Your task to perform on an android device: open a bookmark in the chrome app Image 0: 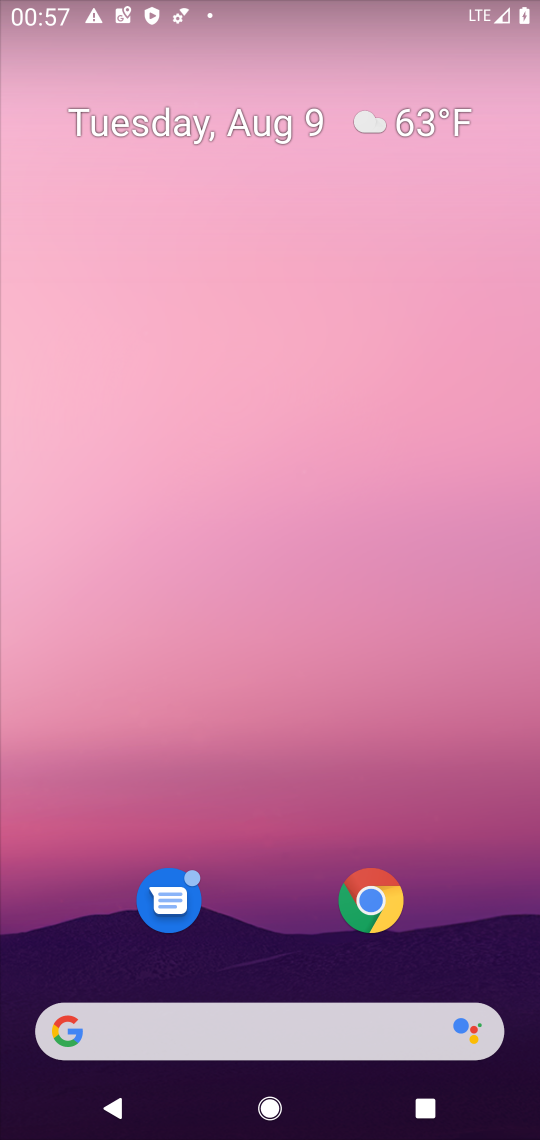
Step 0: press home button
Your task to perform on an android device: open a bookmark in the chrome app Image 1: 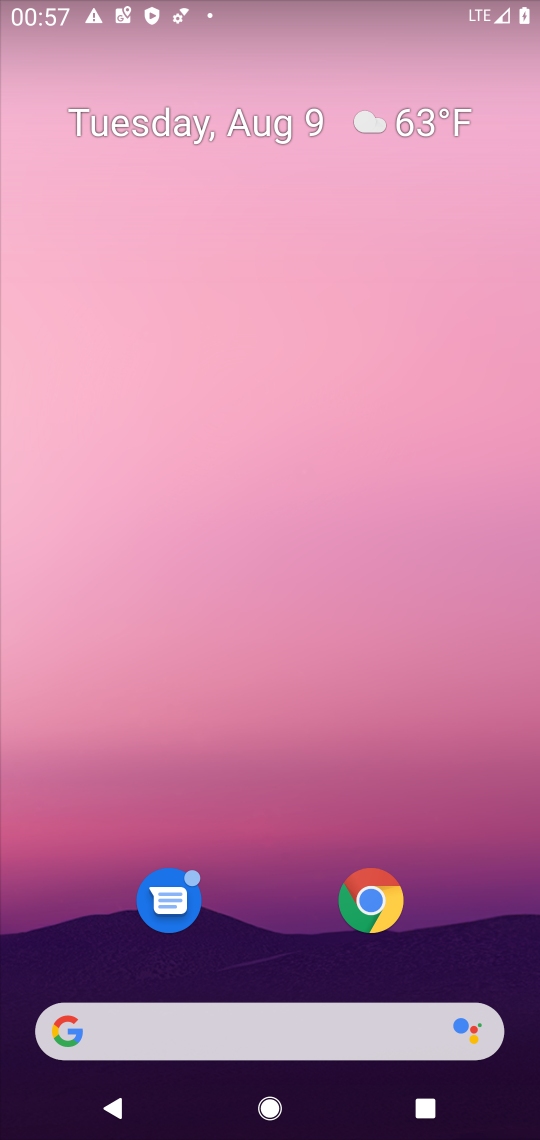
Step 1: drag from (276, 913) to (312, 181)
Your task to perform on an android device: open a bookmark in the chrome app Image 2: 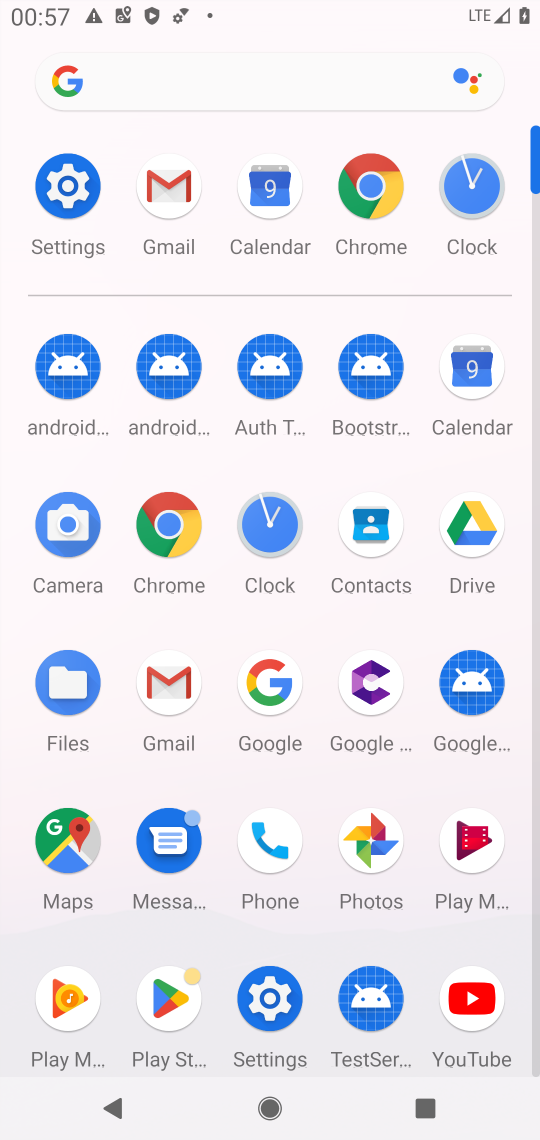
Step 2: click (171, 514)
Your task to perform on an android device: open a bookmark in the chrome app Image 3: 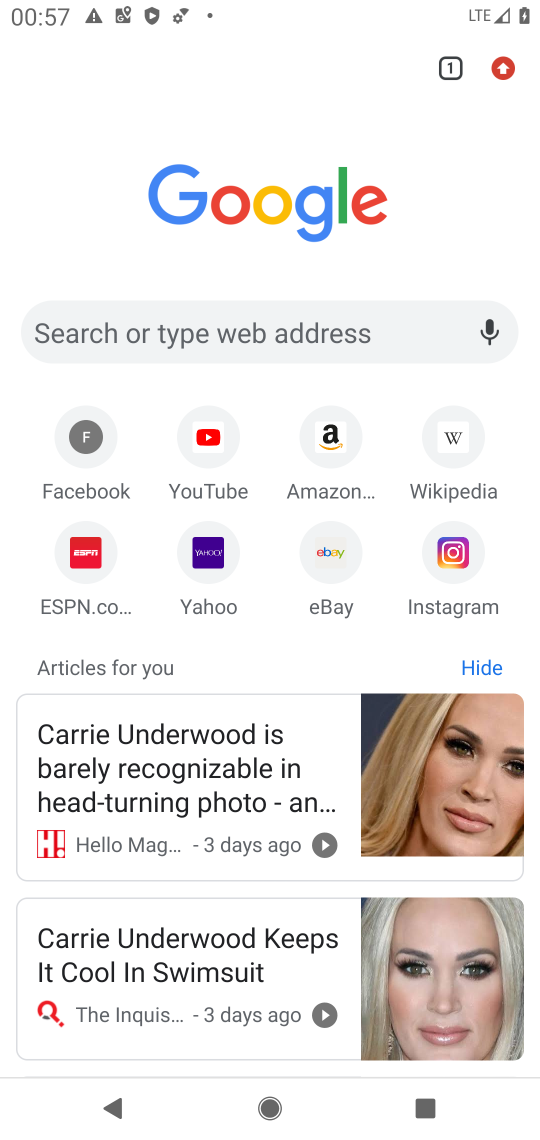
Step 3: click (499, 70)
Your task to perform on an android device: open a bookmark in the chrome app Image 4: 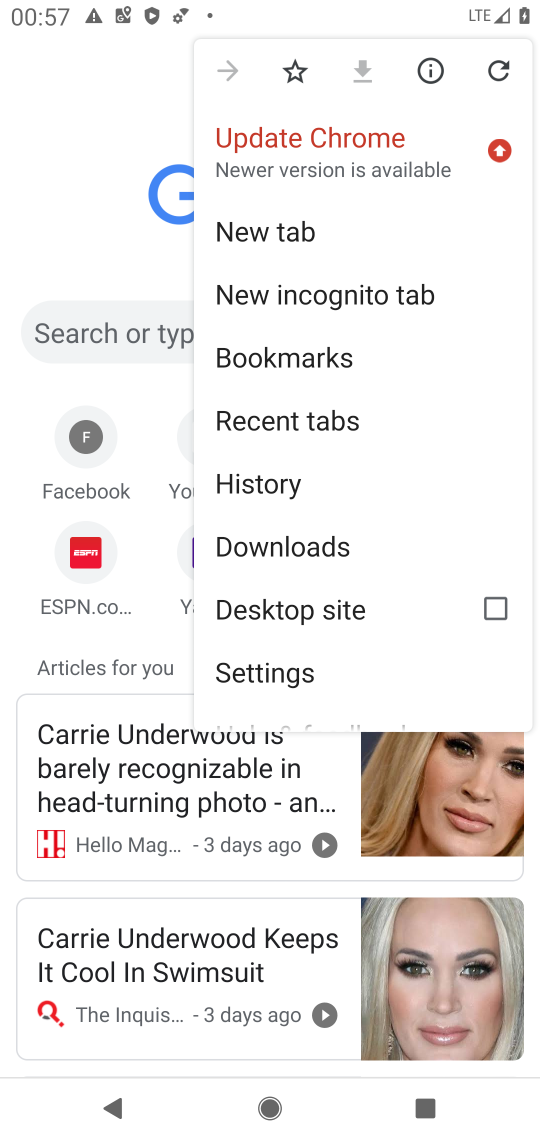
Step 4: click (318, 356)
Your task to perform on an android device: open a bookmark in the chrome app Image 5: 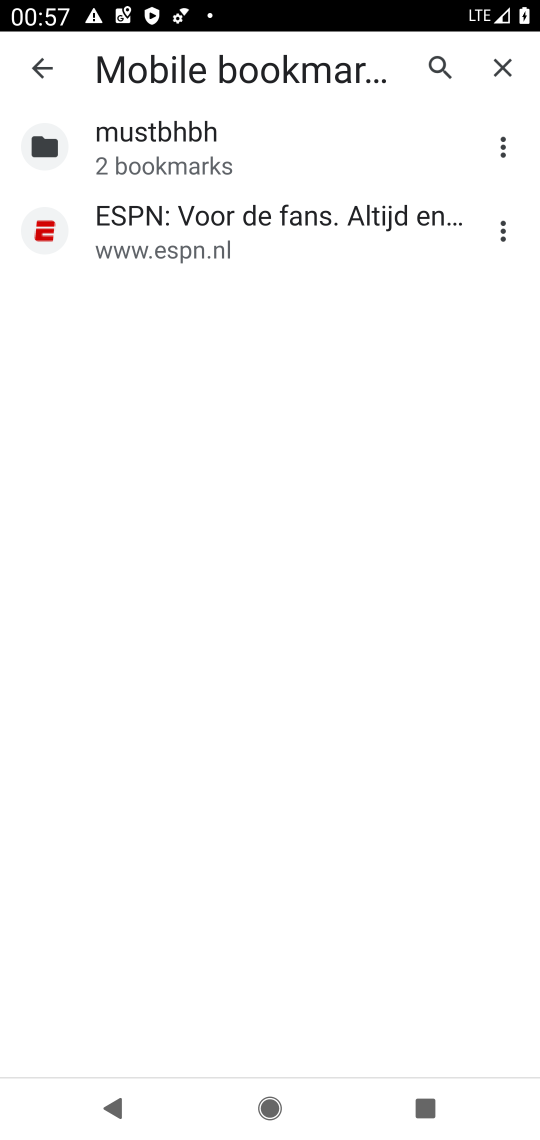
Step 5: click (244, 218)
Your task to perform on an android device: open a bookmark in the chrome app Image 6: 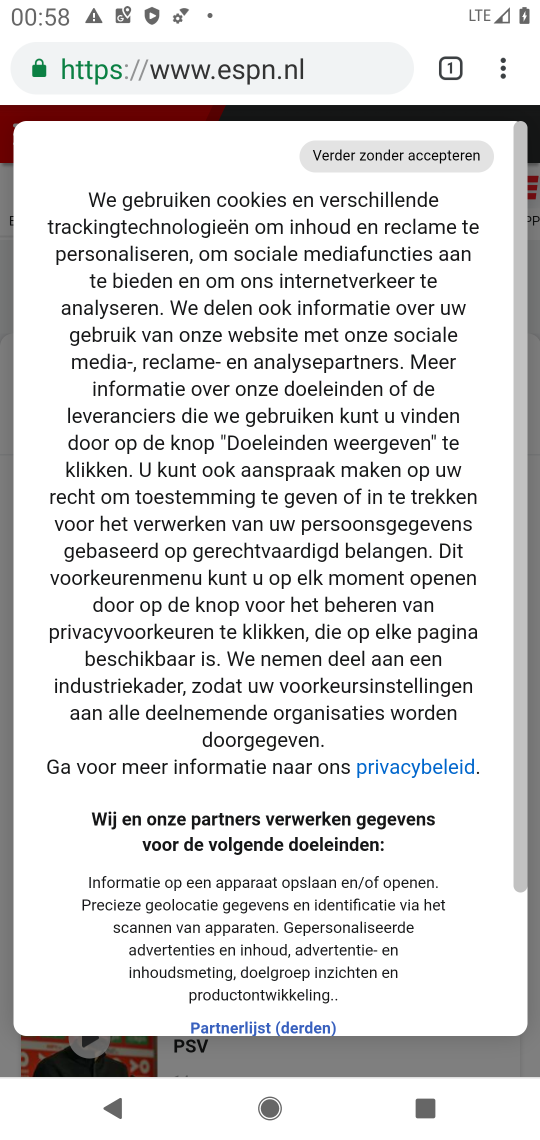
Step 6: task complete